Your task to perform on an android device: Go to battery settings Image 0: 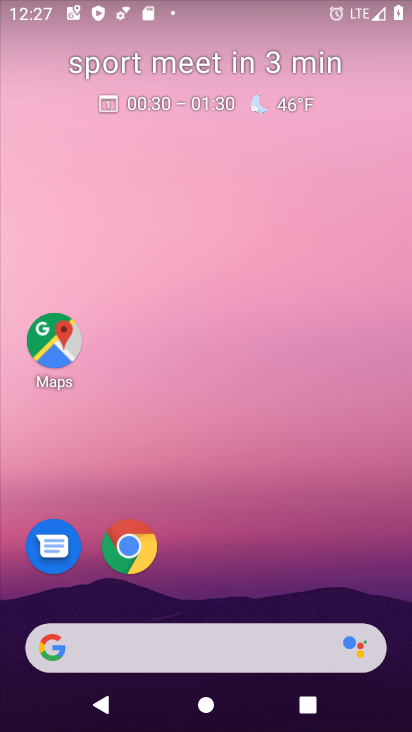
Step 0: drag from (311, 580) to (282, 16)
Your task to perform on an android device: Go to battery settings Image 1: 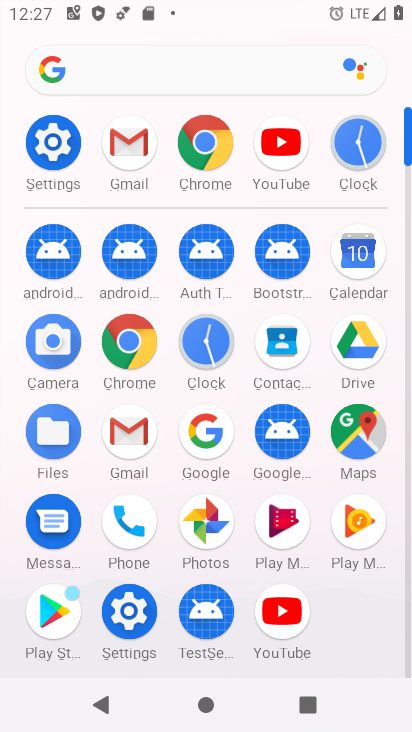
Step 1: click (58, 150)
Your task to perform on an android device: Go to battery settings Image 2: 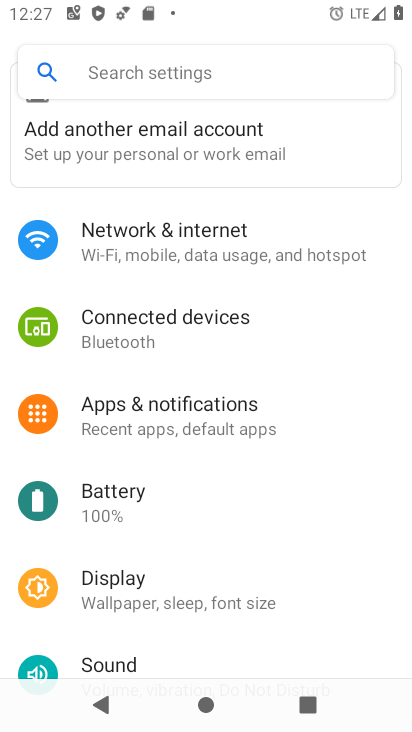
Step 2: click (114, 479)
Your task to perform on an android device: Go to battery settings Image 3: 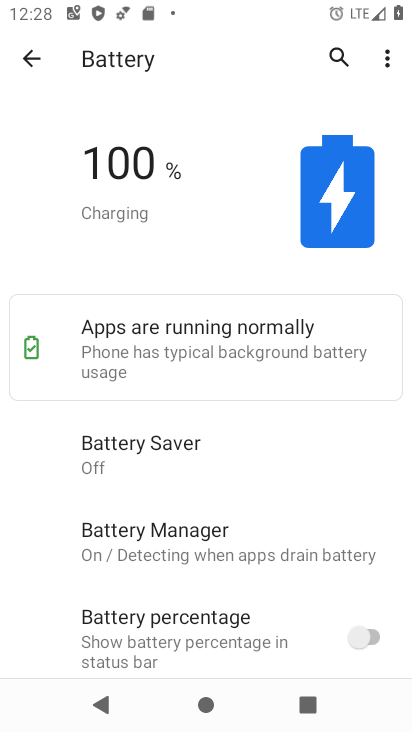
Step 3: task complete